Your task to perform on an android device: search for starred emails in the gmail app Image 0: 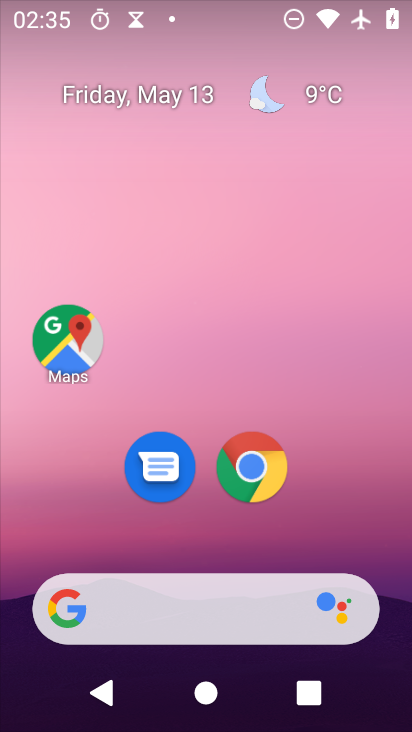
Step 0: drag from (275, 303) to (177, 6)
Your task to perform on an android device: search for starred emails in the gmail app Image 1: 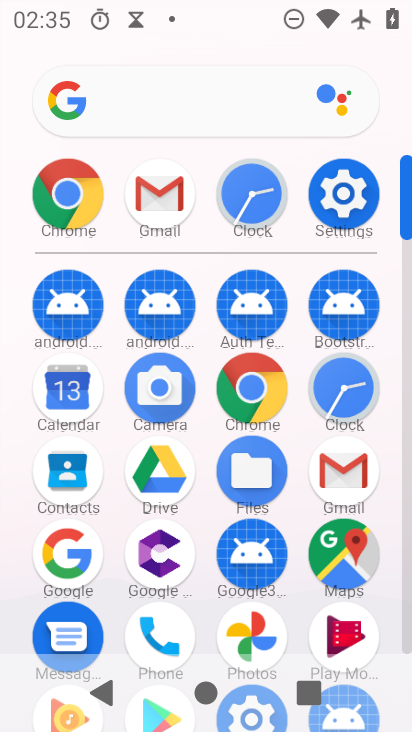
Step 1: click (164, 204)
Your task to perform on an android device: search for starred emails in the gmail app Image 2: 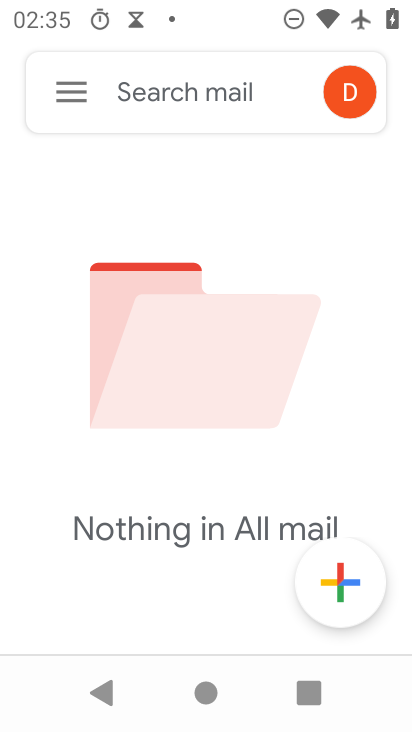
Step 2: click (167, 91)
Your task to perform on an android device: search for starred emails in the gmail app Image 3: 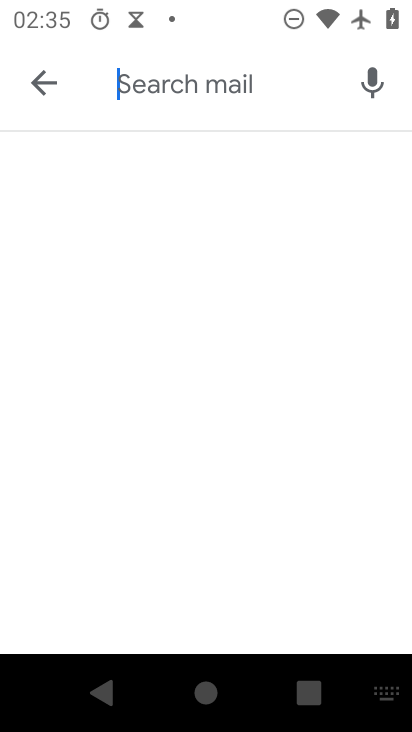
Step 3: type "starred"
Your task to perform on an android device: search for starred emails in the gmail app Image 4: 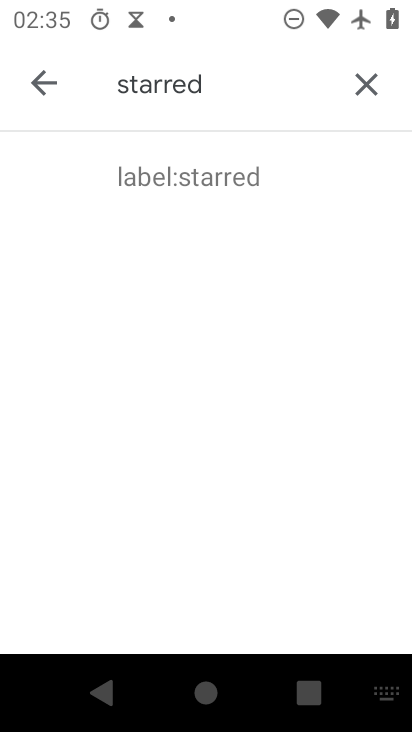
Step 4: click (154, 169)
Your task to perform on an android device: search for starred emails in the gmail app Image 5: 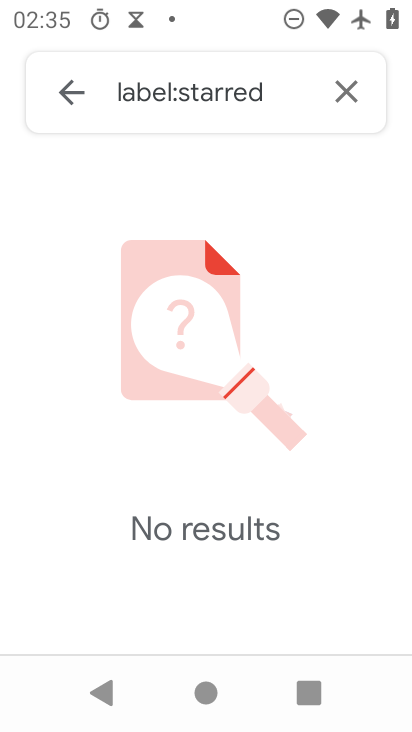
Step 5: task complete